Your task to perform on an android device: uninstall "PlayWell" Image 0: 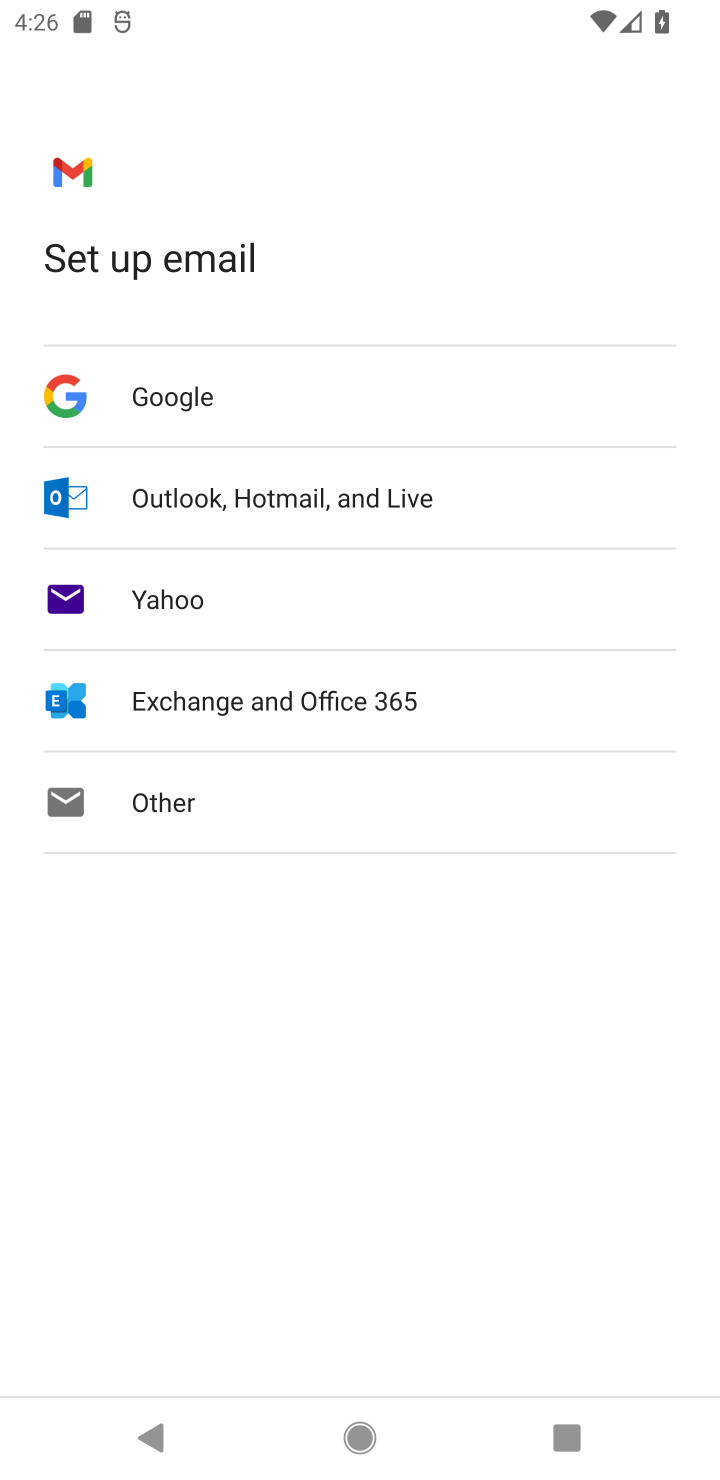
Step 0: press home button
Your task to perform on an android device: uninstall "PlayWell" Image 1: 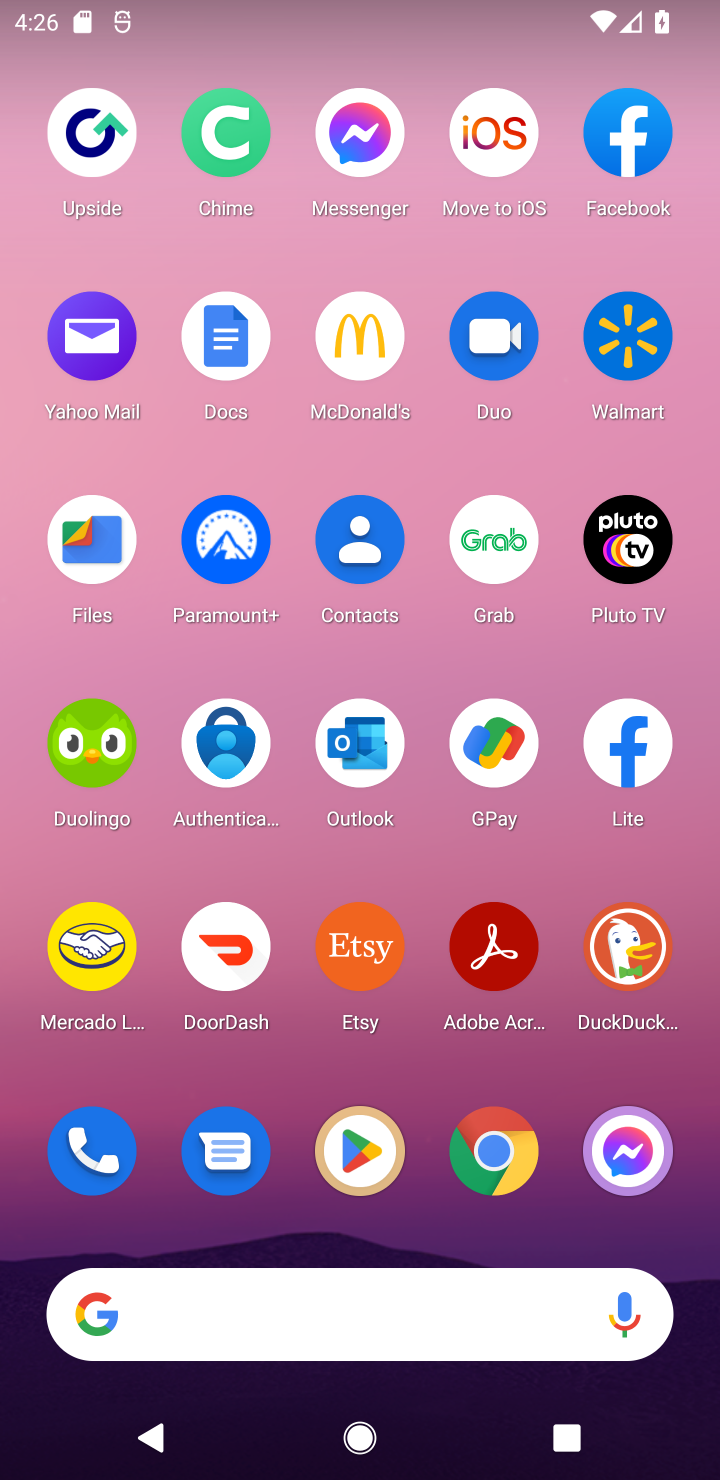
Step 1: click (348, 1133)
Your task to perform on an android device: uninstall "PlayWell" Image 2: 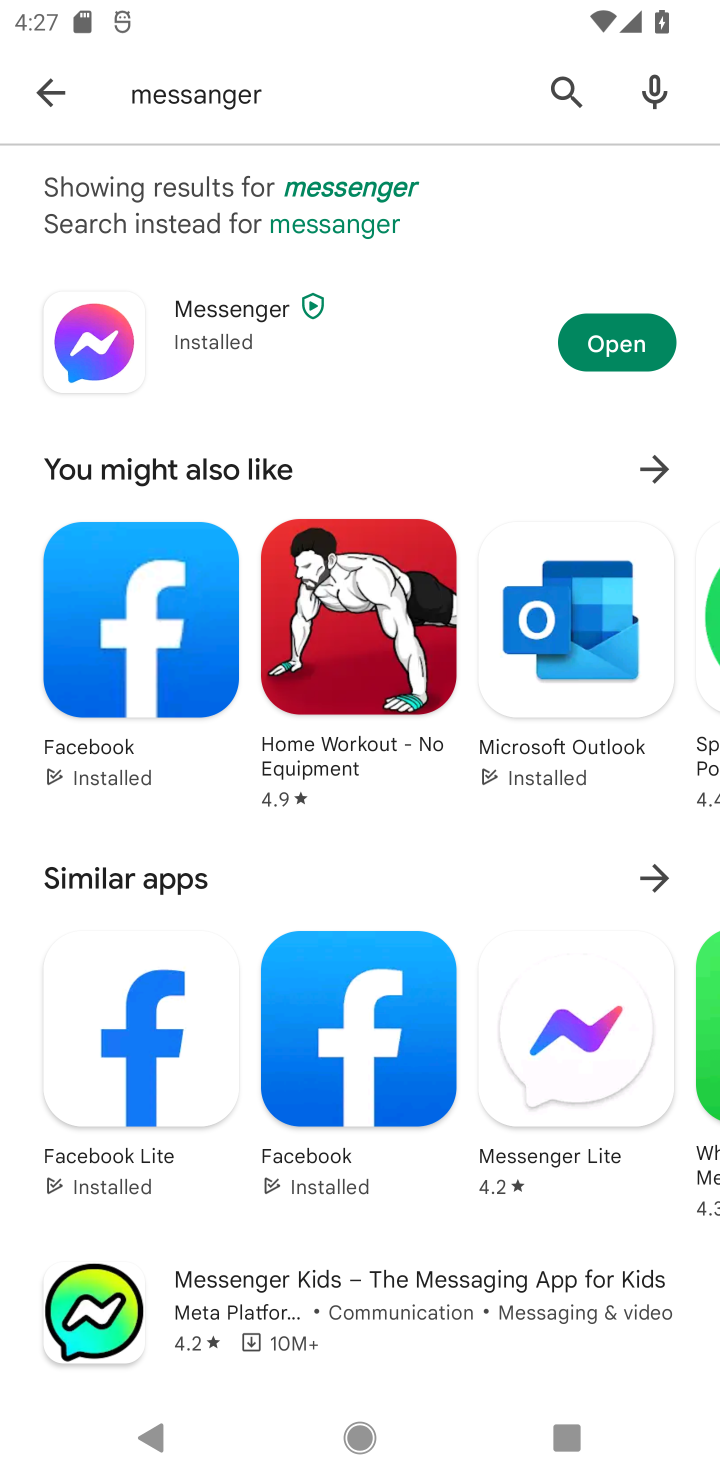
Step 2: click (528, 121)
Your task to perform on an android device: uninstall "PlayWell" Image 3: 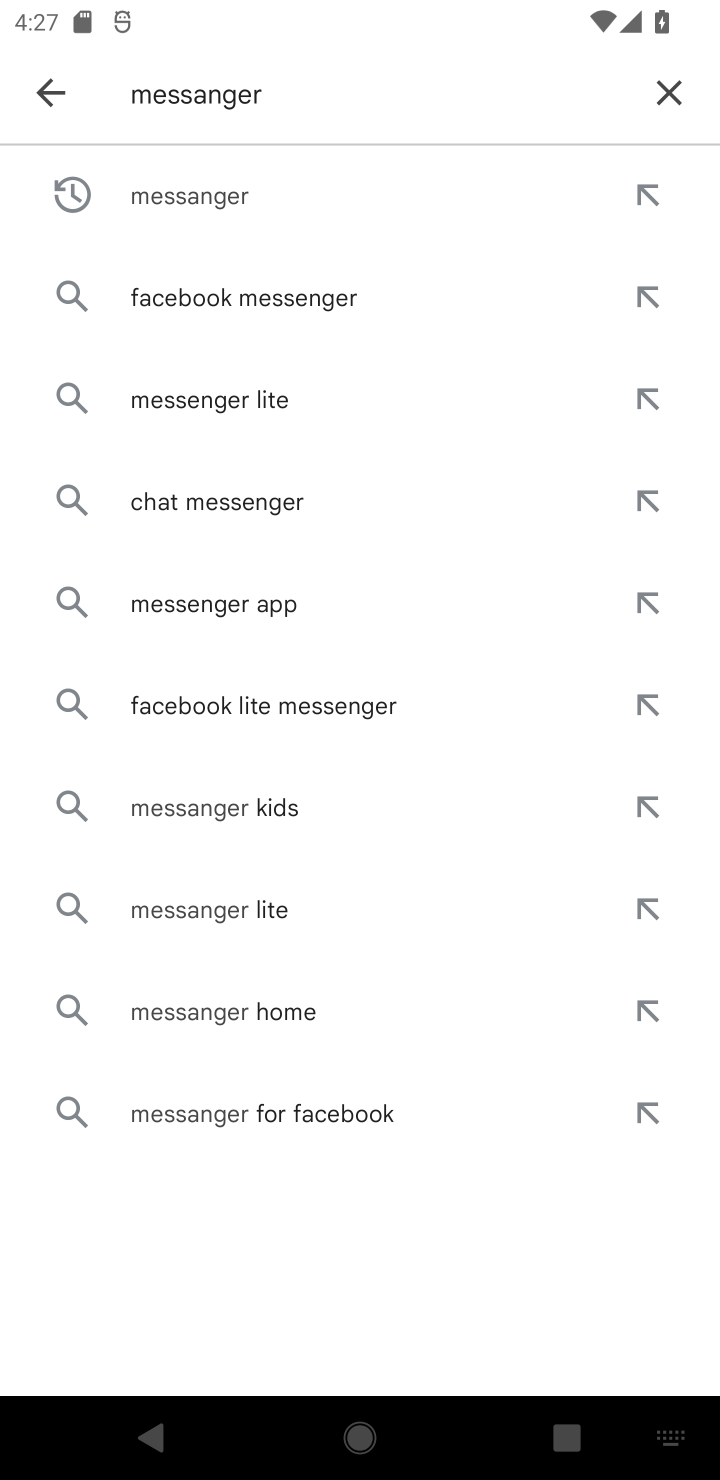
Step 3: click (653, 104)
Your task to perform on an android device: uninstall "PlayWell" Image 4: 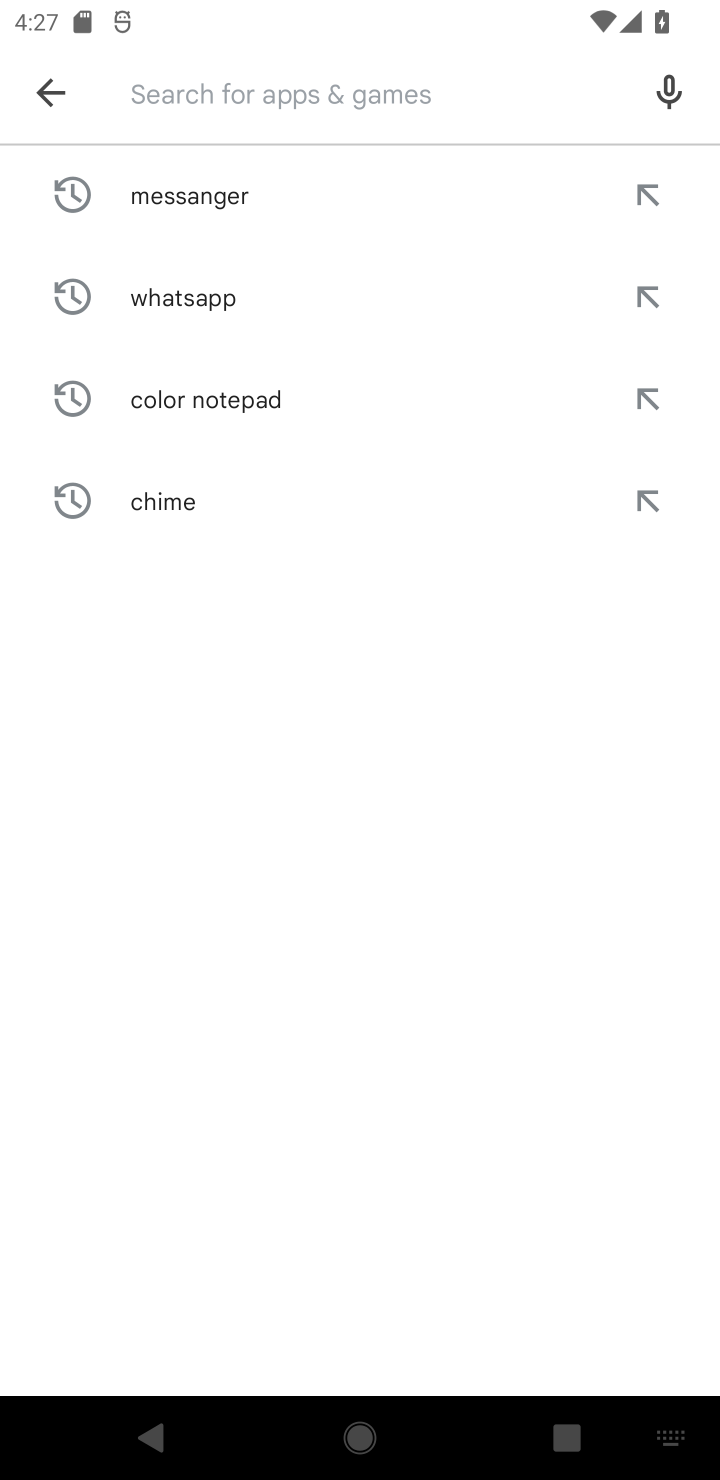
Step 4: type "playwell"
Your task to perform on an android device: uninstall "PlayWell" Image 5: 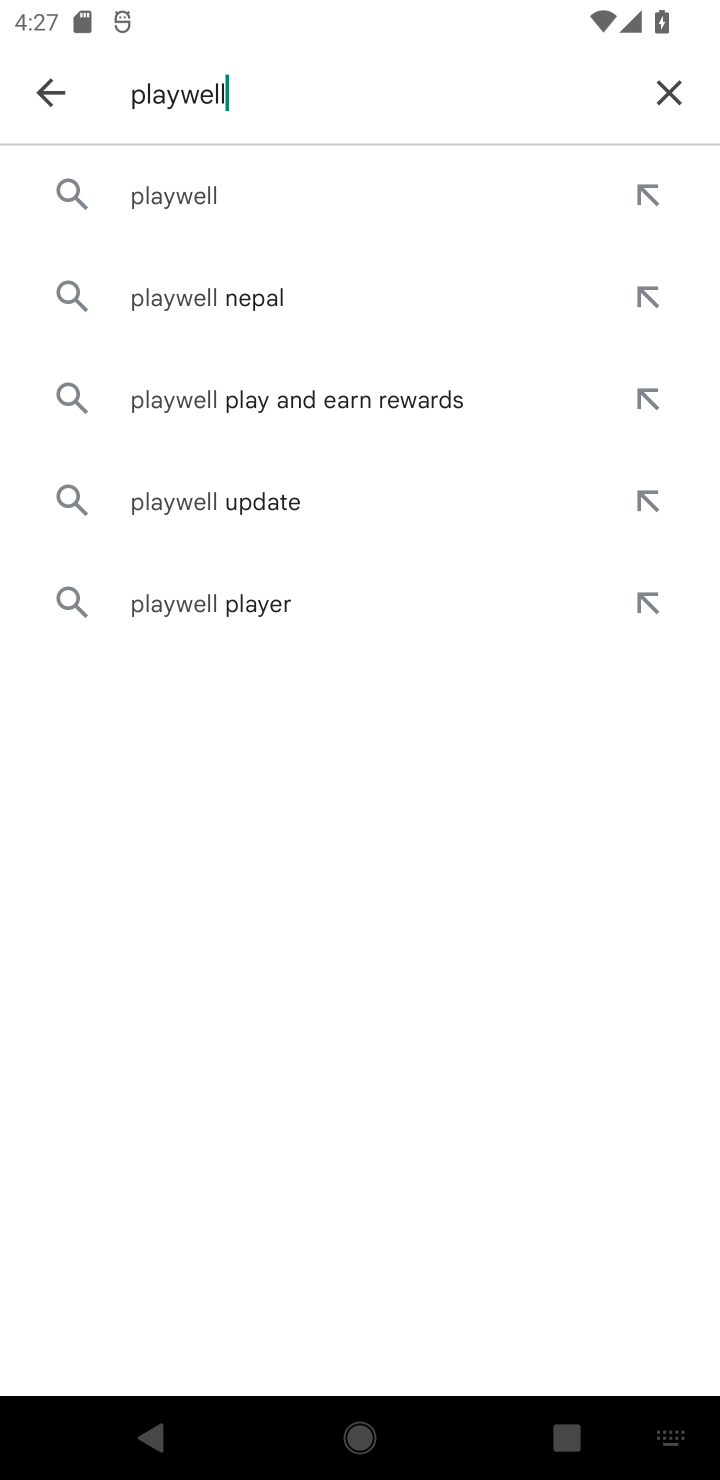
Step 5: click (228, 204)
Your task to perform on an android device: uninstall "PlayWell" Image 6: 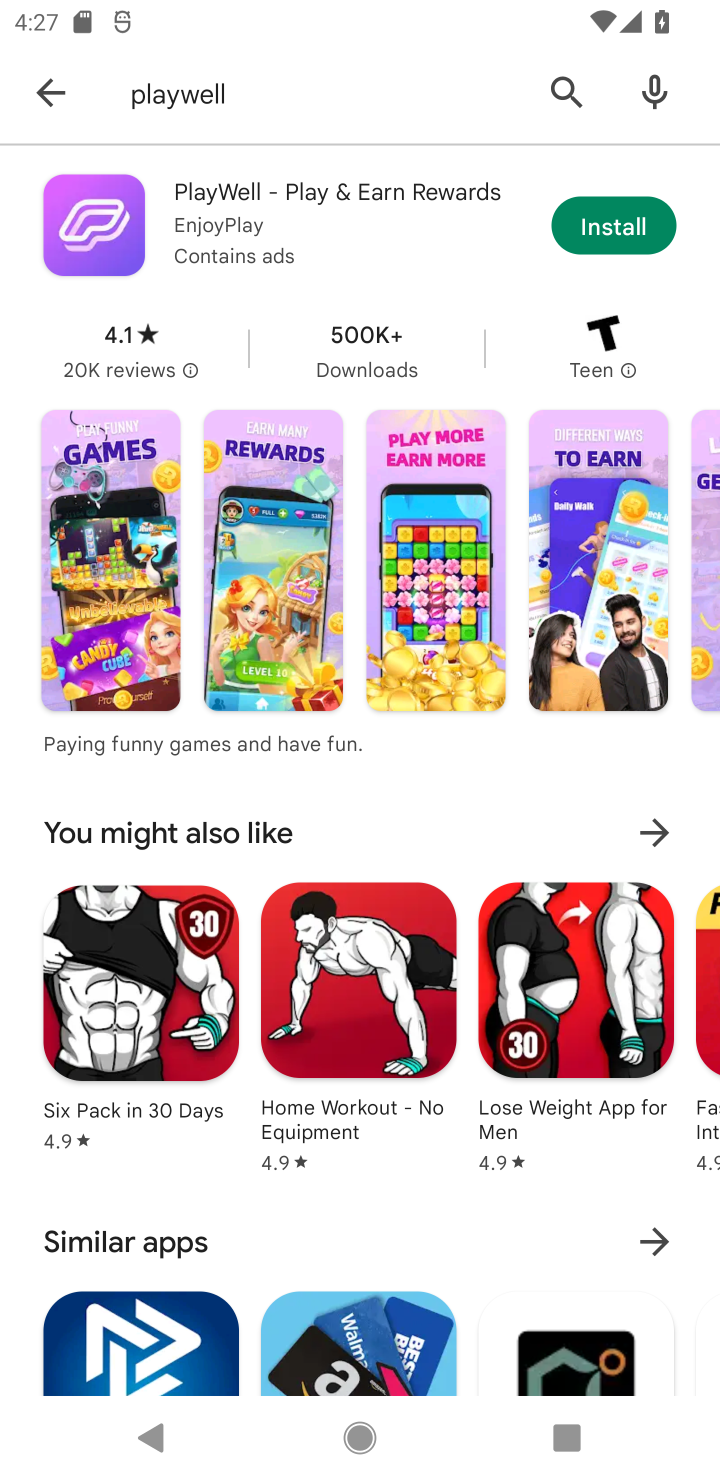
Step 6: click (593, 222)
Your task to perform on an android device: uninstall "PlayWell" Image 7: 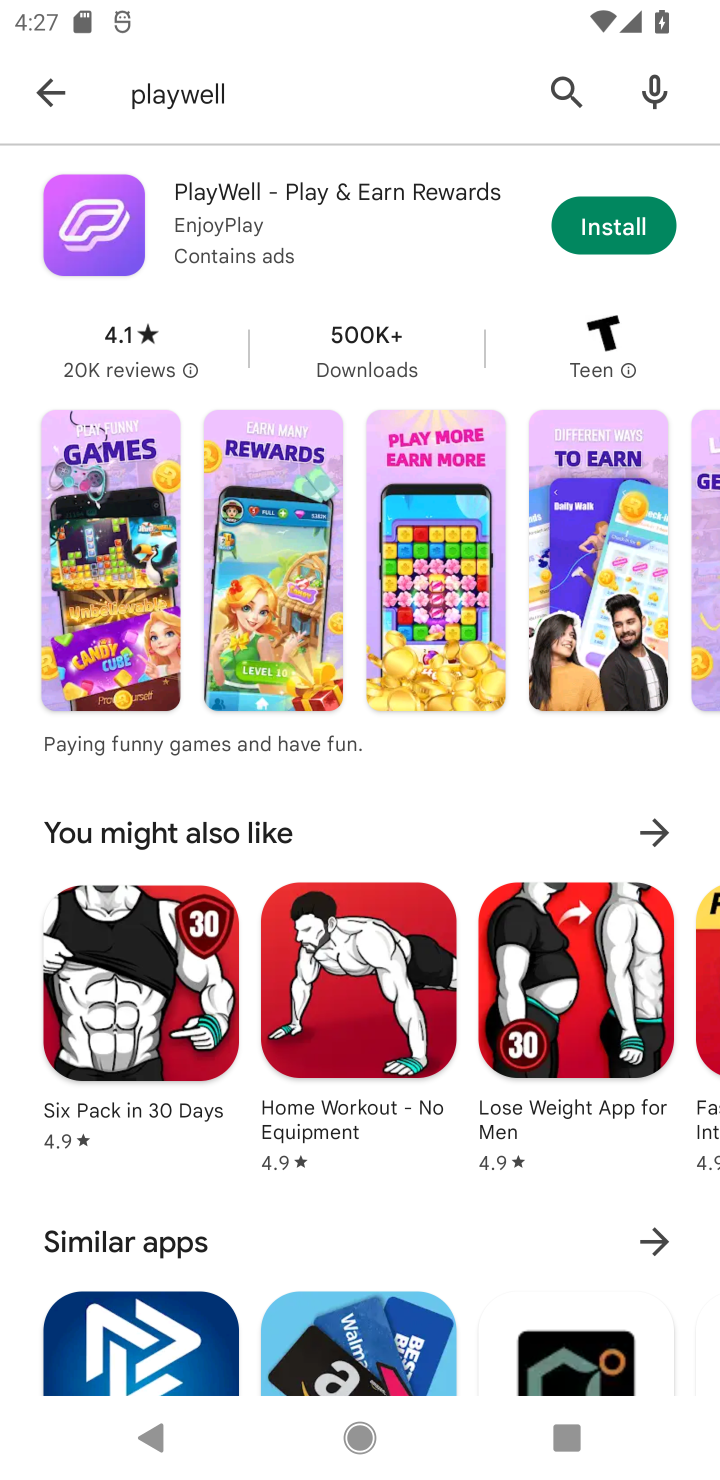
Step 7: task complete